Your task to perform on an android device: open a bookmark in the chrome app Image 0: 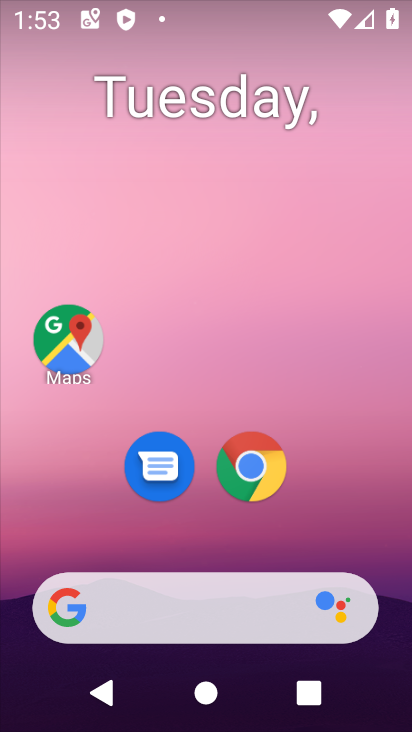
Step 0: click (269, 447)
Your task to perform on an android device: open a bookmark in the chrome app Image 1: 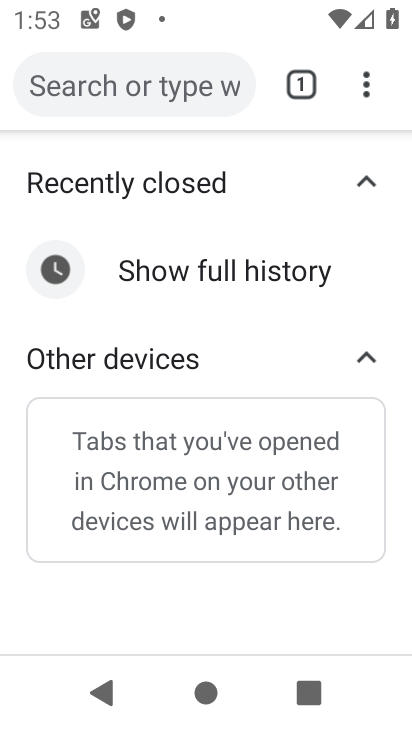
Step 1: click (373, 99)
Your task to perform on an android device: open a bookmark in the chrome app Image 2: 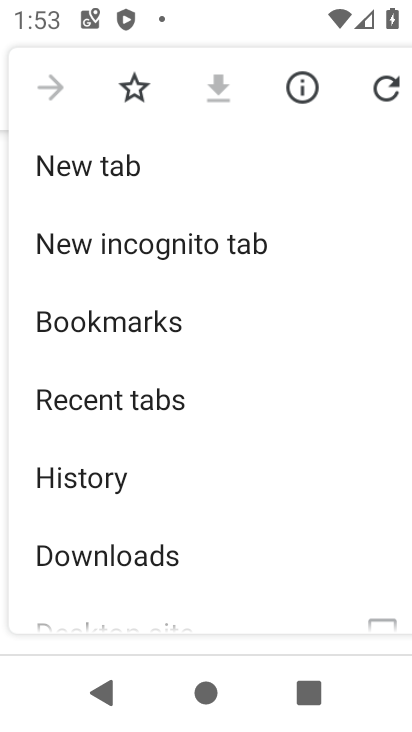
Step 2: click (198, 308)
Your task to perform on an android device: open a bookmark in the chrome app Image 3: 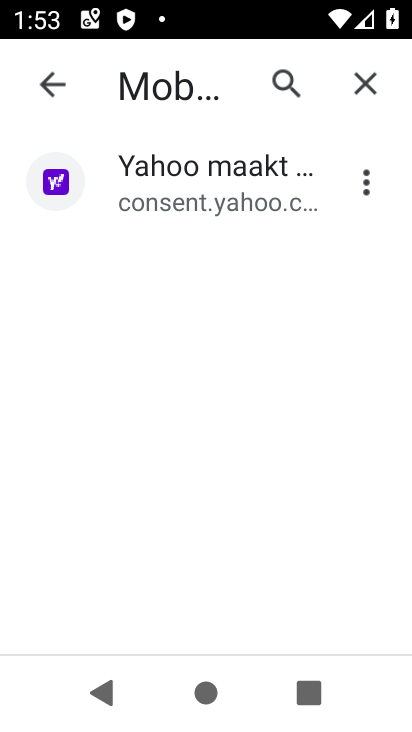
Step 3: click (155, 196)
Your task to perform on an android device: open a bookmark in the chrome app Image 4: 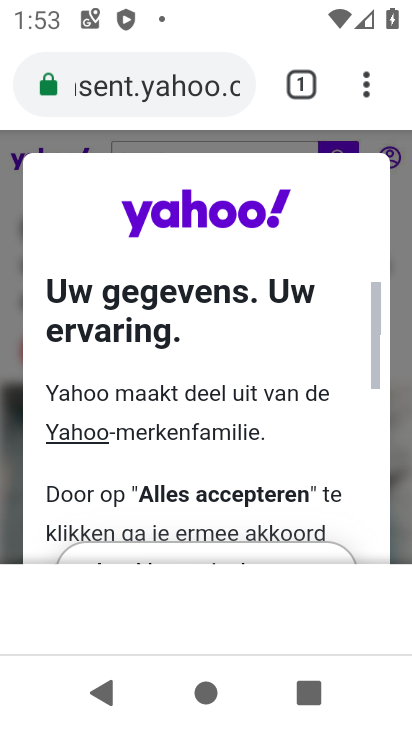
Step 4: task complete